Your task to perform on an android device: Go to eBay Image 0: 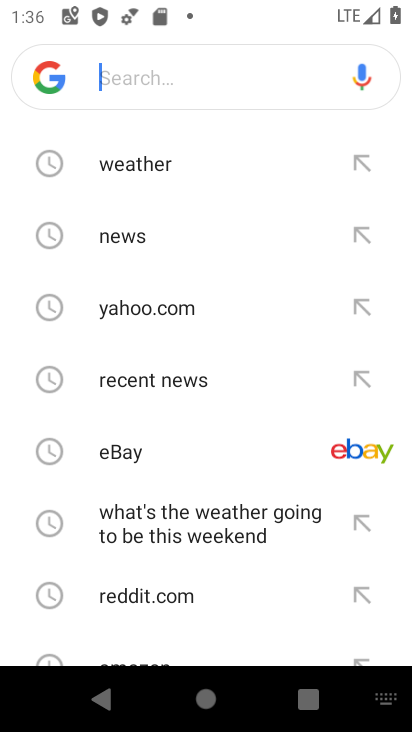
Step 0: click (114, 451)
Your task to perform on an android device: Go to eBay Image 1: 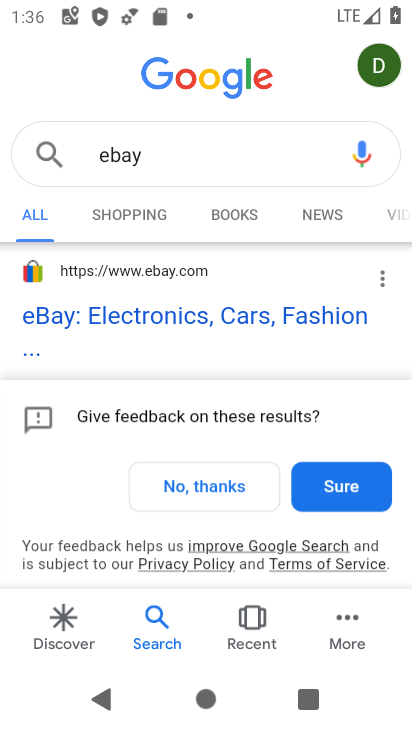
Step 1: task complete